Your task to perform on an android device: Go to Google maps Image 0: 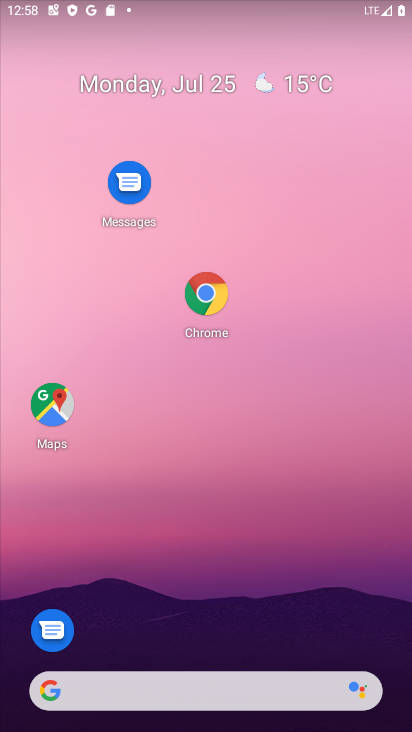
Step 0: drag from (265, 557) to (258, 119)
Your task to perform on an android device: Go to Google maps Image 1: 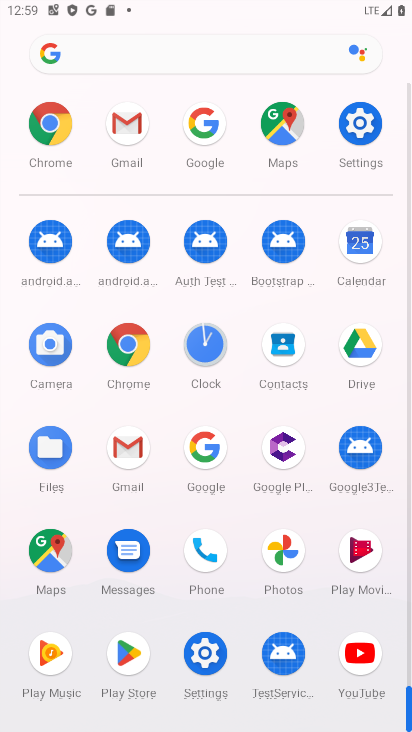
Step 1: click (48, 540)
Your task to perform on an android device: Go to Google maps Image 2: 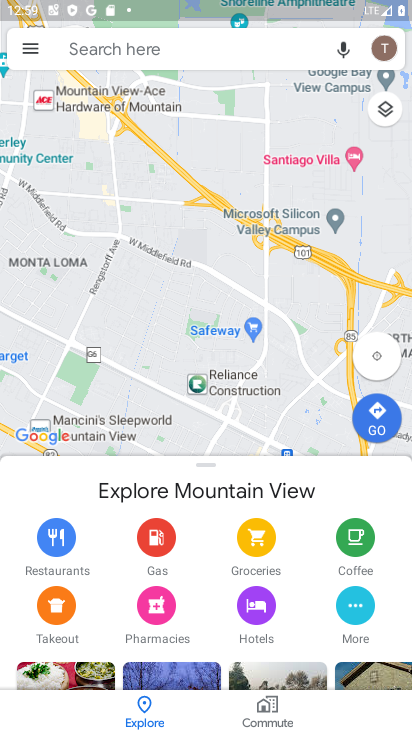
Step 2: task complete